Your task to perform on an android device: Do I have any events this weekend? Image 0: 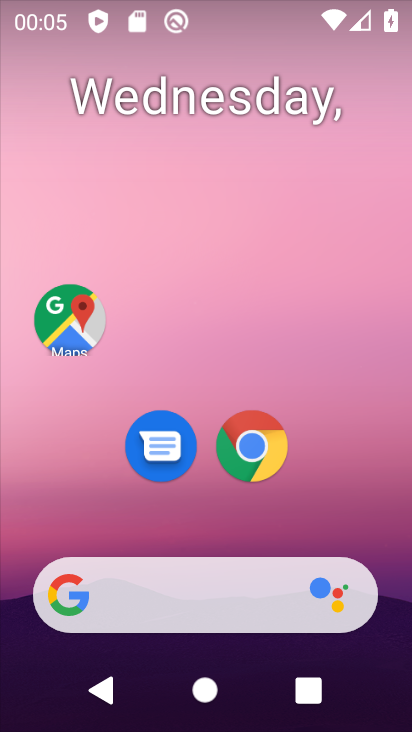
Step 0: drag from (274, 650) to (185, 218)
Your task to perform on an android device: Do I have any events this weekend? Image 1: 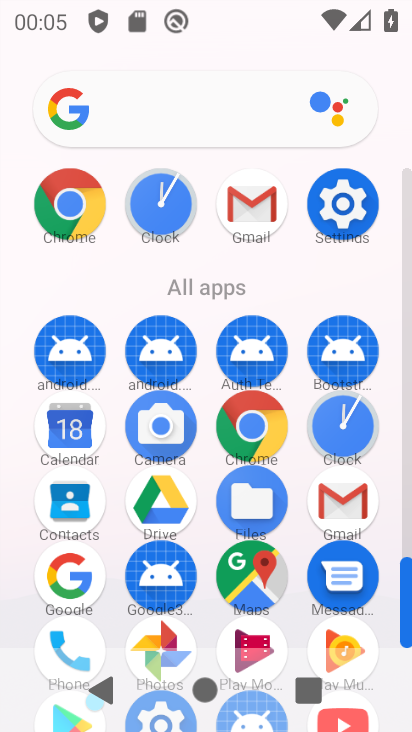
Step 1: click (71, 433)
Your task to perform on an android device: Do I have any events this weekend? Image 2: 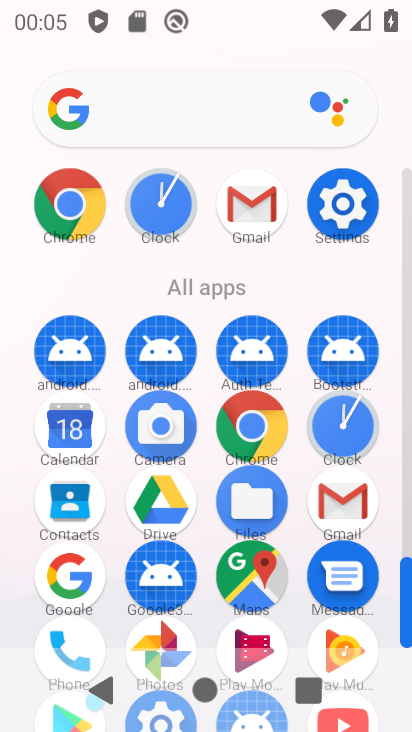
Step 2: click (71, 433)
Your task to perform on an android device: Do I have any events this weekend? Image 3: 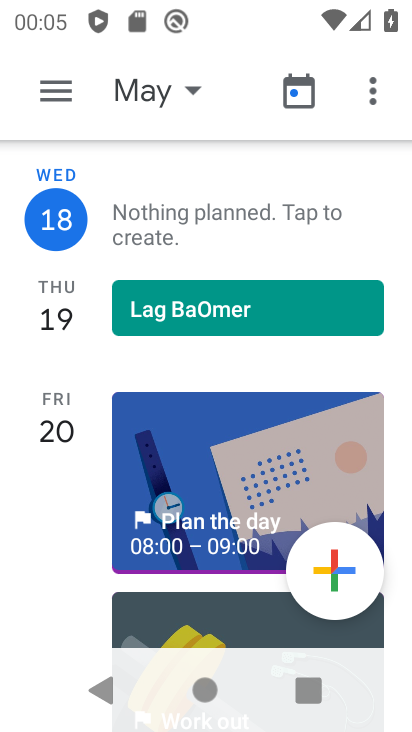
Step 3: click (164, 439)
Your task to perform on an android device: Do I have any events this weekend? Image 4: 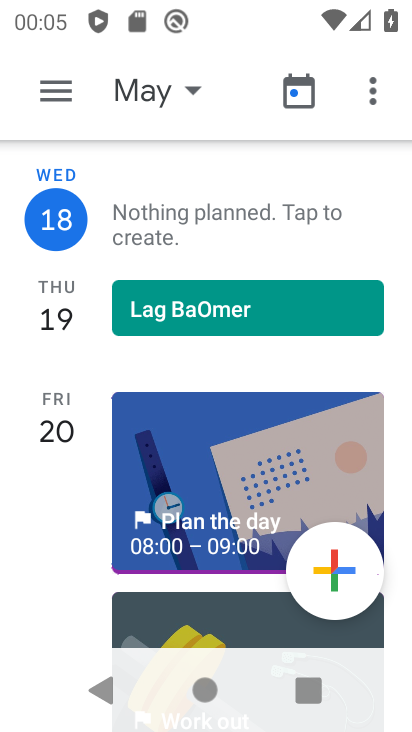
Step 4: click (188, 447)
Your task to perform on an android device: Do I have any events this weekend? Image 5: 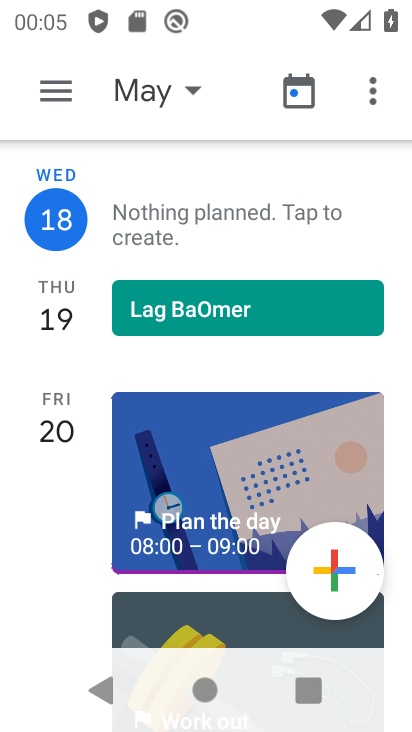
Step 5: click (186, 447)
Your task to perform on an android device: Do I have any events this weekend? Image 6: 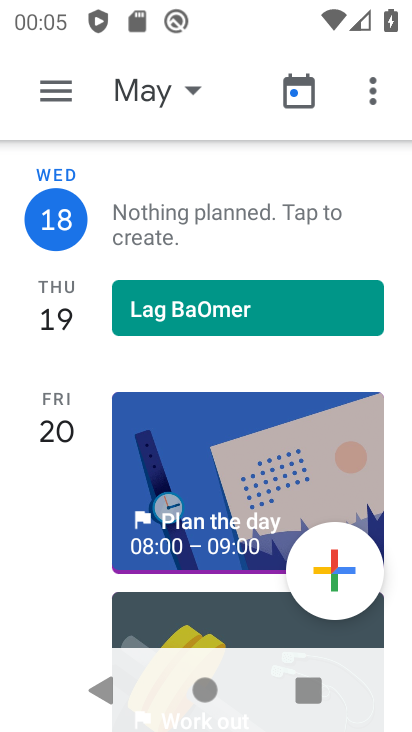
Step 6: click (186, 448)
Your task to perform on an android device: Do I have any events this weekend? Image 7: 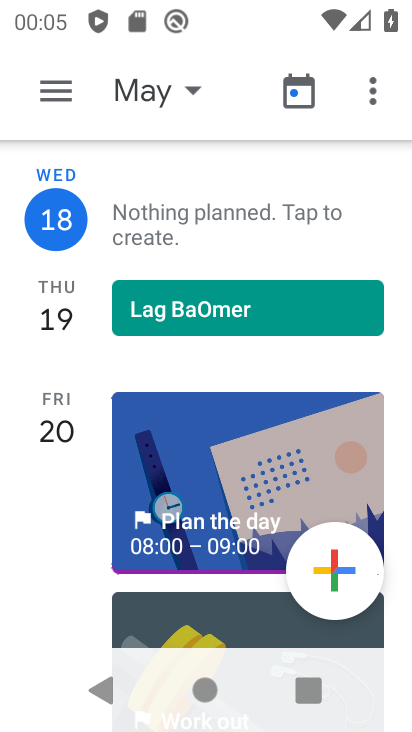
Step 7: click (191, 458)
Your task to perform on an android device: Do I have any events this weekend? Image 8: 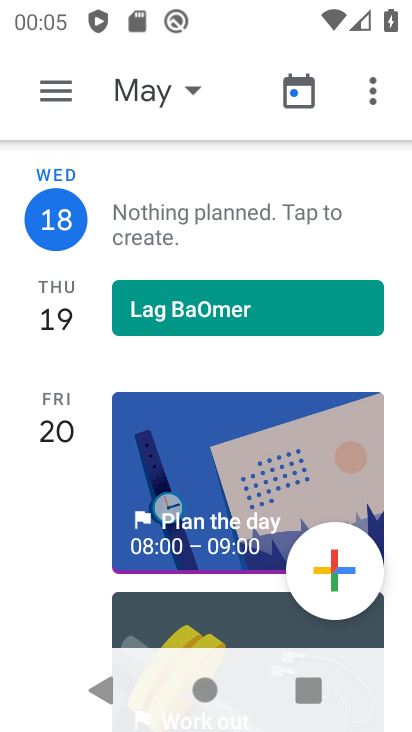
Step 8: click (191, 458)
Your task to perform on an android device: Do I have any events this weekend? Image 9: 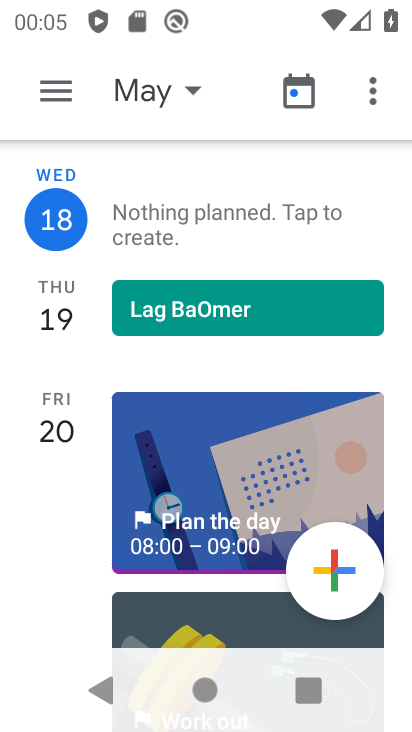
Step 9: click (191, 458)
Your task to perform on an android device: Do I have any events this weekend? Image 10: 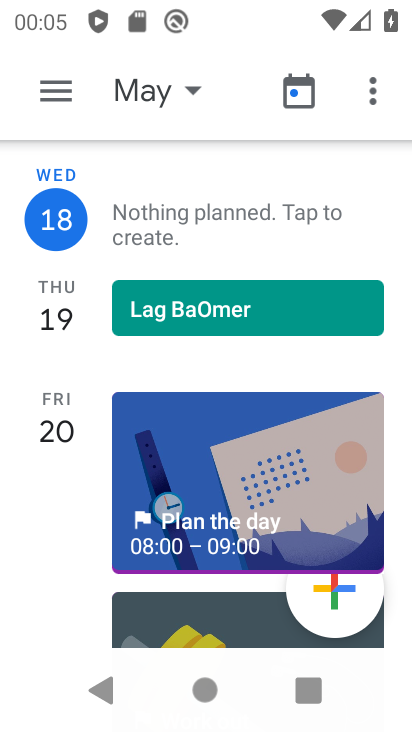
Step 10: click (188, 466)
Your task to perform on an android device: Do I have any events this weekend? Image 11: 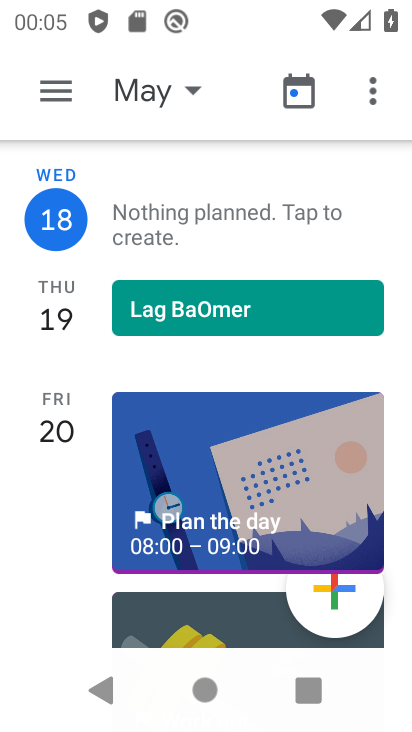
Step 11: click (204, 524)
Your task to perform on an android device: Do I have any events this weekend? Image 12: 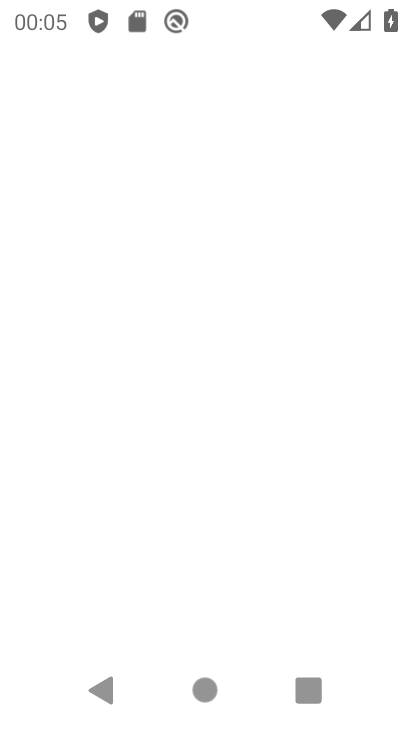
Step 12: task complete